Your task to perform on an android device: Show me productivity apps on the Play Store Image 0: 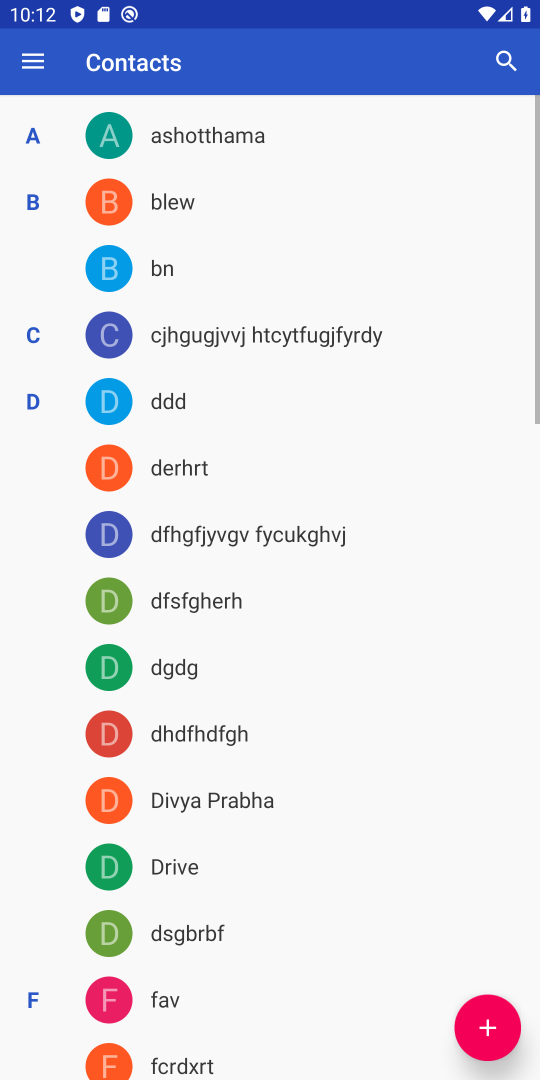
Step 0: press home button
Your task to perform on an android device: Show me productivity apps on the Play Store Image 1: 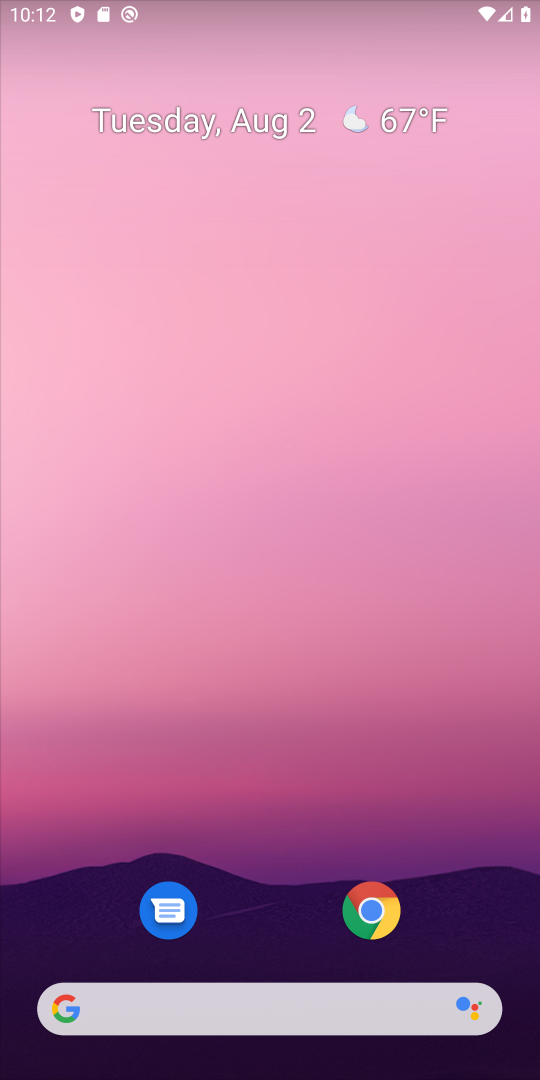
Step 1: drag from (322, 975) to (339, 476)
Your task to perform on an android device: Show me productivity apps on the Play Store Image 2: 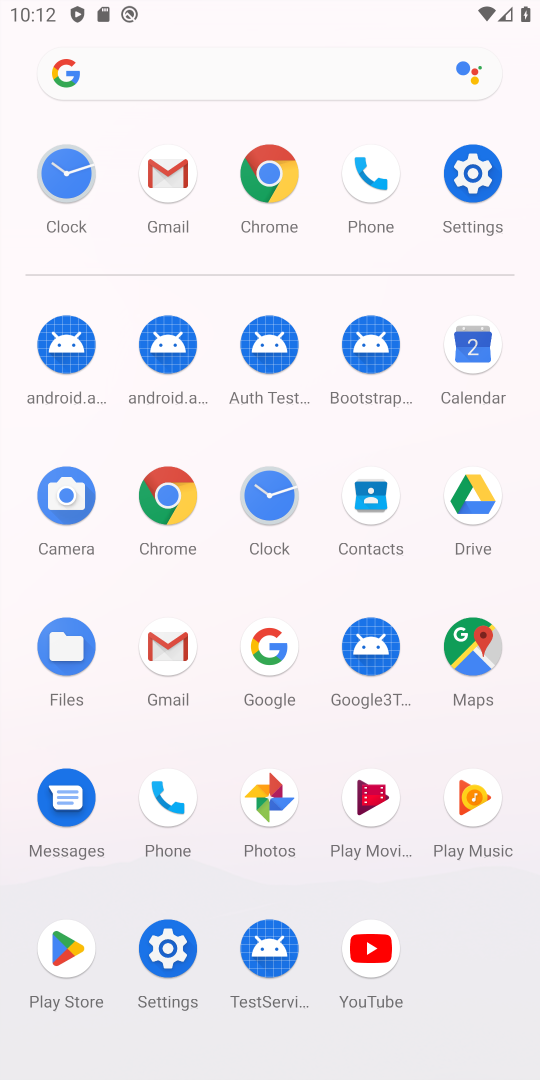
Step 2: click (62, 939)
Your task to perform on an android device: Show me productivity apps on the Play Store Image 3: 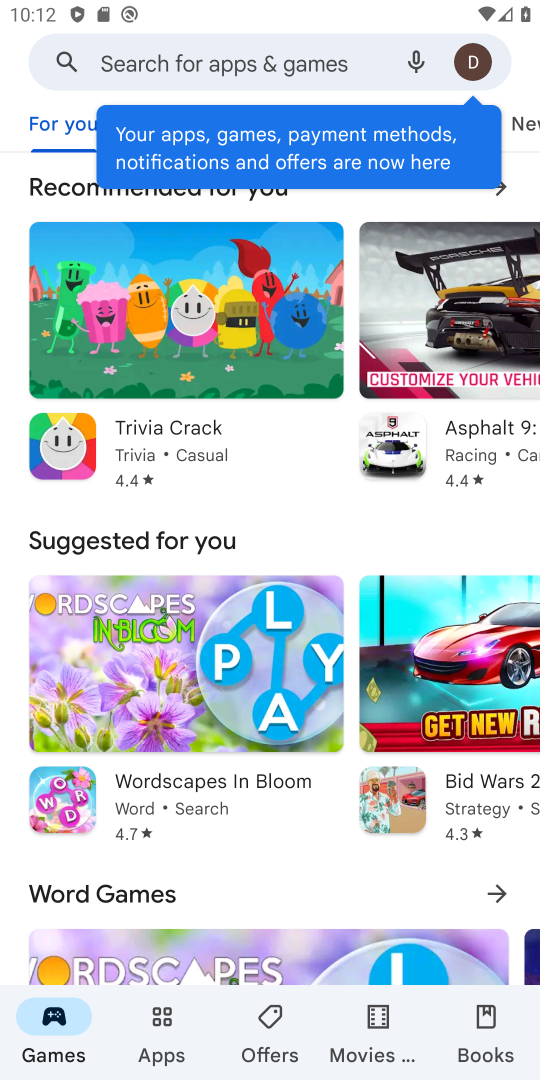
Step 3: click (180, 1035)
Your task to perform on an android device: Show me productivity apps on the Play Store Image 4: 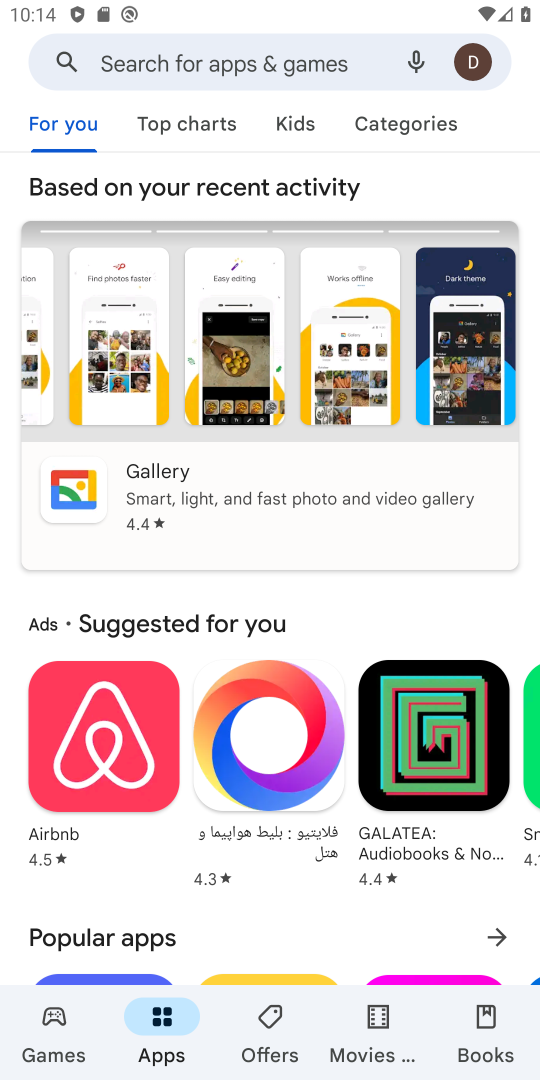
Step 4: task complete